Your task to perform on an android device: Go to Amazon Image 0: 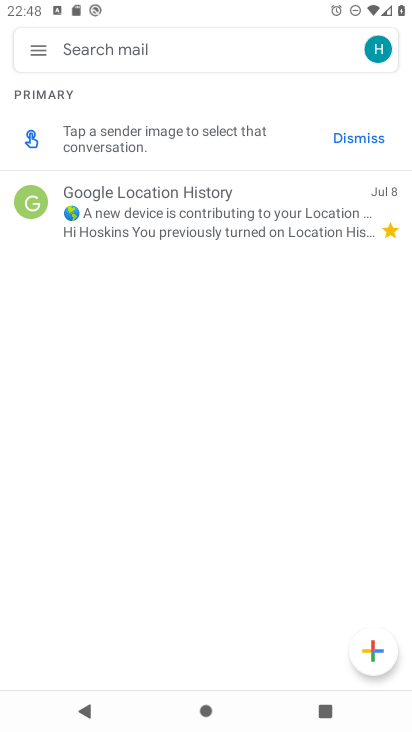
Step 0: press home button
Your task to perform on an android device: Go to Amazon Image 1: 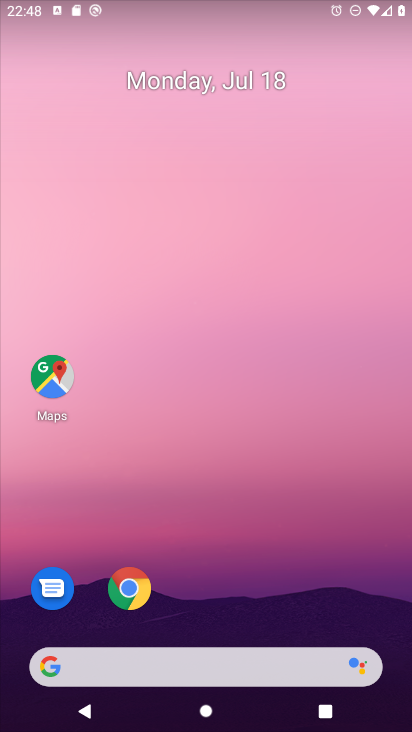
Step 1: click (126, 591)
Your task to perform on an android device: Go to Amazon Image 2: 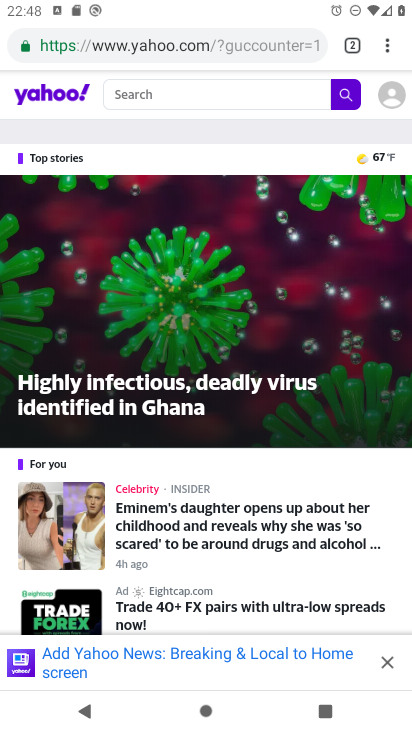
Step 2: click (260, 45)
Your task to perform on an android device: Go to Amazon Image 3: 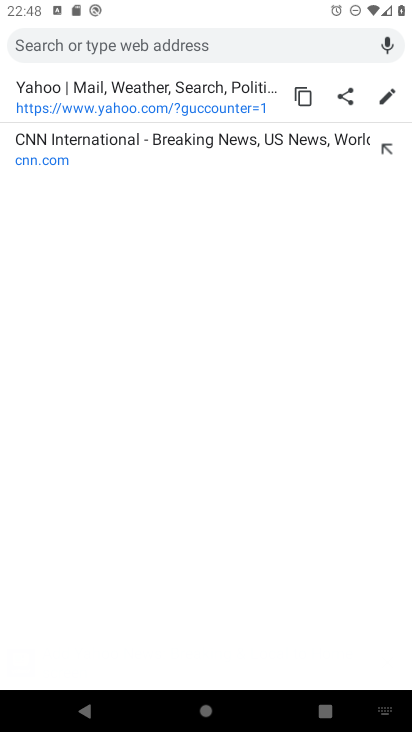
Step 3: type "amazon"
Your task to perform on an android device: Go to Amazon Image 4: 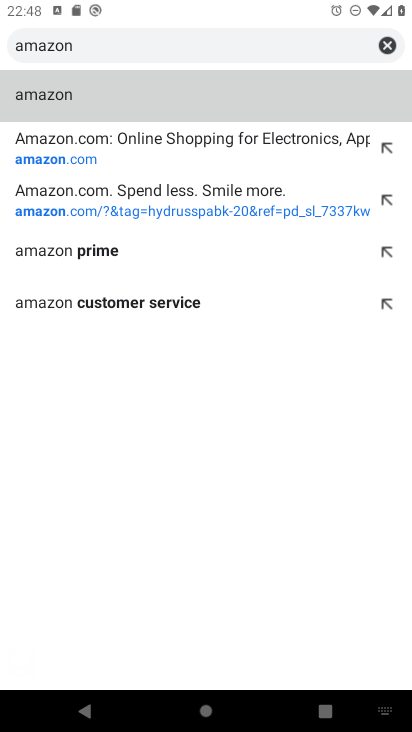
Step 4: click (83, 89)
Your task to perform on an android device: Go to Amazon Image 5: 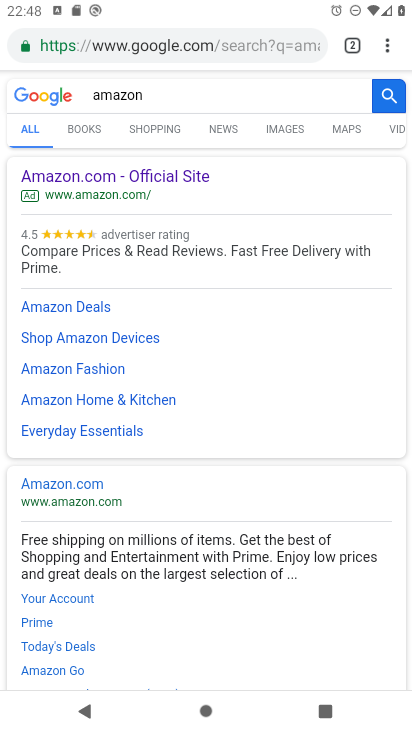
Step 5: click (83, 187)
Your task to perform on an android device: Go to Amazon Image 6: 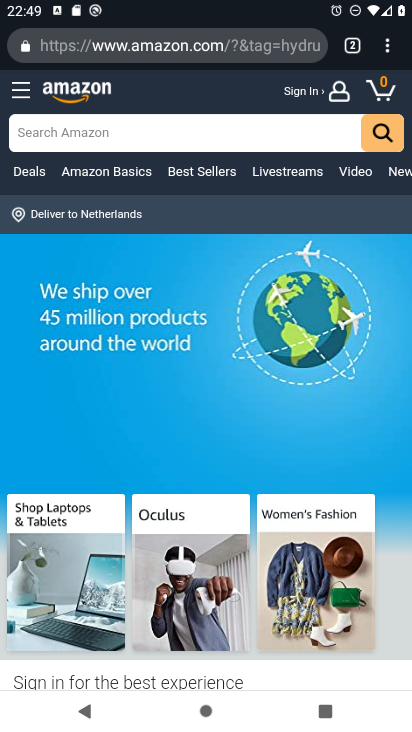
Step 6: task complete